Your task to perform on an android device: toggle notification dots Image 0: 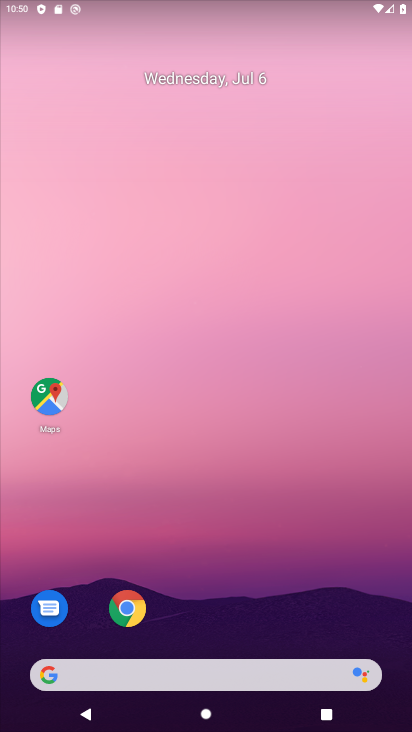
Step 0: drag from (286, 703) to (188, 298)
Your task to perform on an android device: toggle notification dots Image 1: 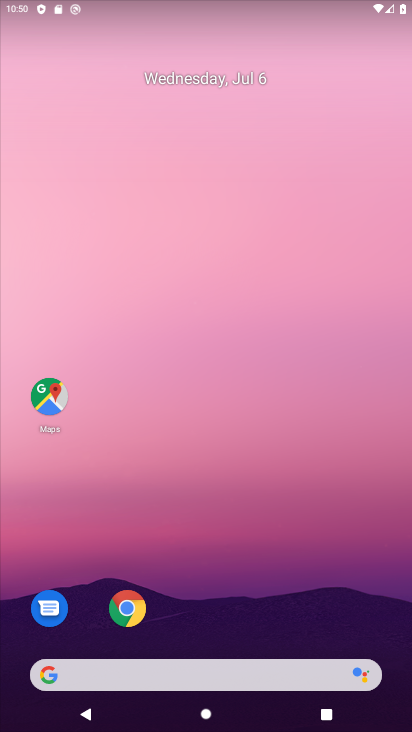
Step 1: drag from (278, 721) to (214, 269)
Your task to perform on an android device: toggle notification dots Image 2: 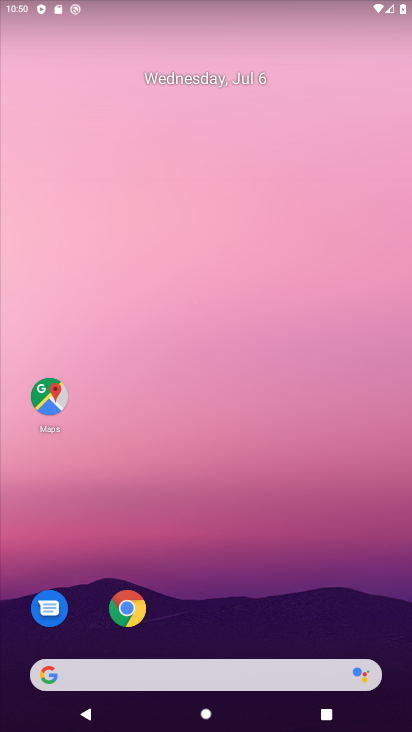
Step 2: drag from (299, 598) to (182, 156)
Your task to perform on an android device: toggle notification dots Image 3: 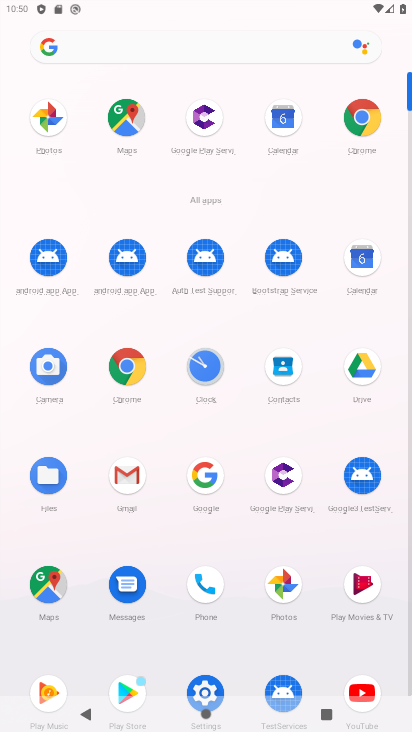
Step 3: click (206, 679)
Your task to perform on an android device: toggle notification dots Image 4: 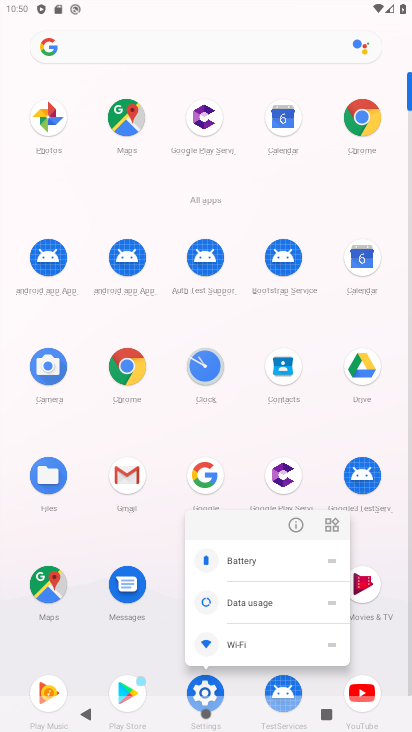
Step 4: click (207, 681)
Your task to perform on an android device: toggle notification dots Image 5: 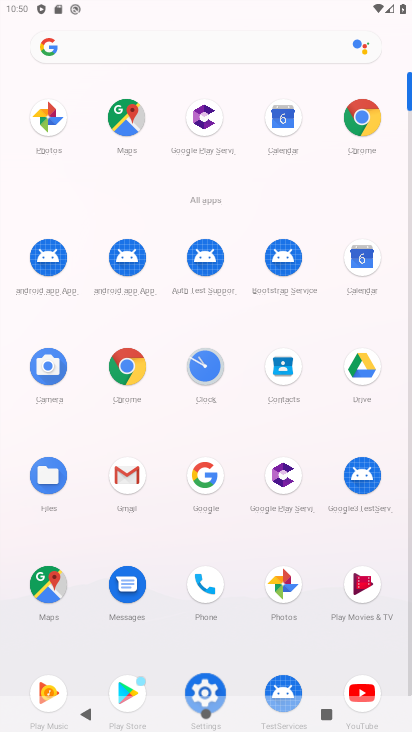
Step 5: click (207, 681)
Your task to perform on an android device: toggle notification dots Image 6: 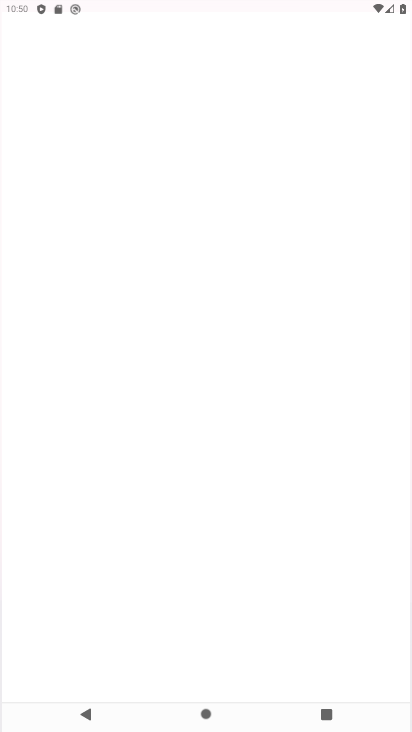
Step 6: click (208, 682)
Your task to perform on an android device: toggle notification dots Image 7: 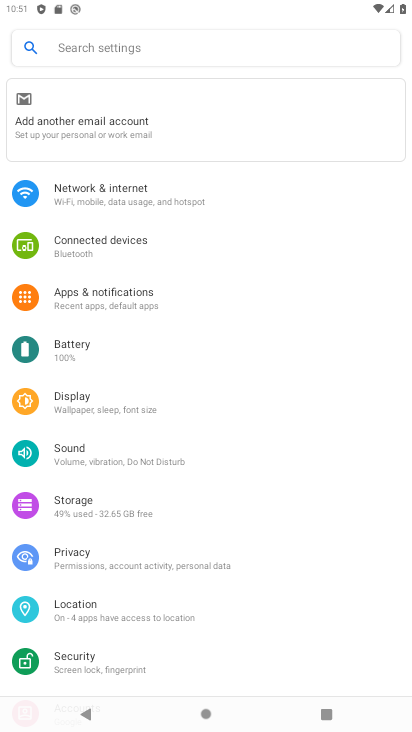
Step 7: click (107, 301)
Your task to perform on an android device: toggle notification dots Image 8: 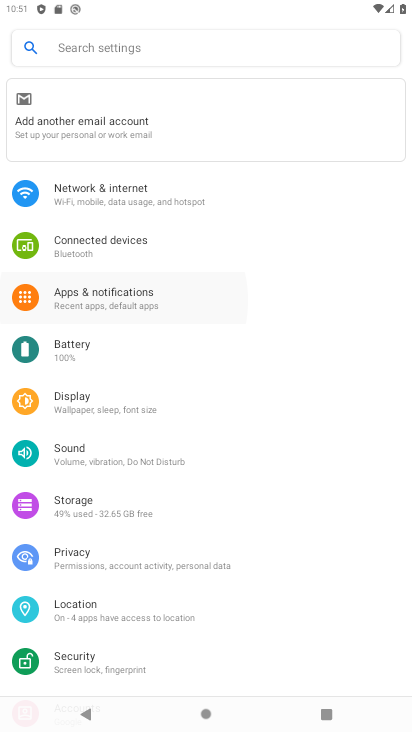
Step 8: click (111, 297)
Your task to perform on an android device: toggle notification dots Image 9: 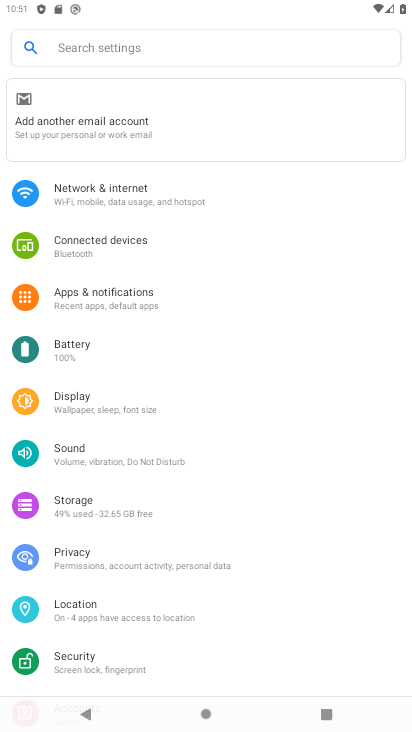
Step 9: click (111, 297)
Your task to perform on an android device: toggle notification dots Image 10: 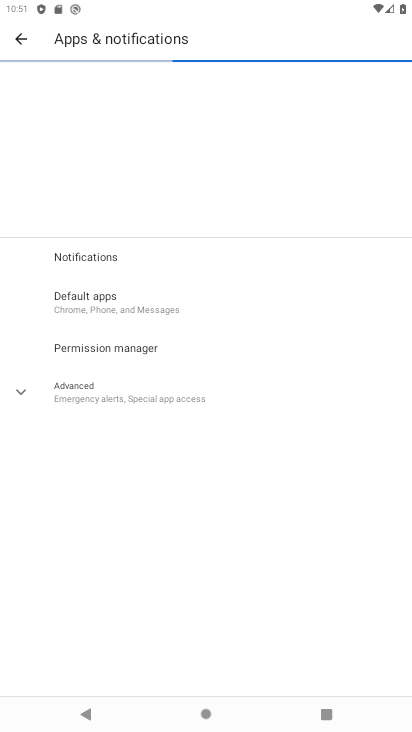
Step 10: click (75, 289)
Your task to perform on an android device: toggle notification dots Image 11: 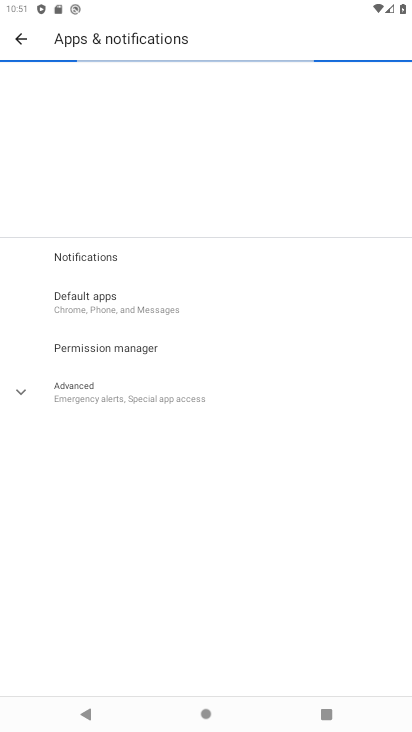
Step 11: click (75, 289)
Your task to perform on an android device: toggle notification dots Image 12: 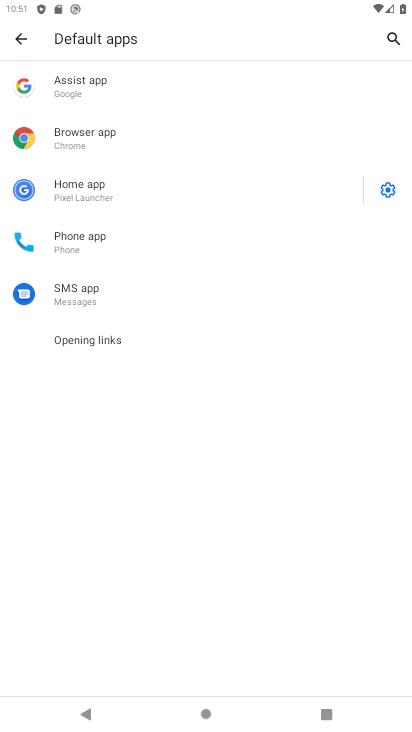
Step 12: click (18, 40)
Your task to perform on an android device: toggle notification dots Image 13: 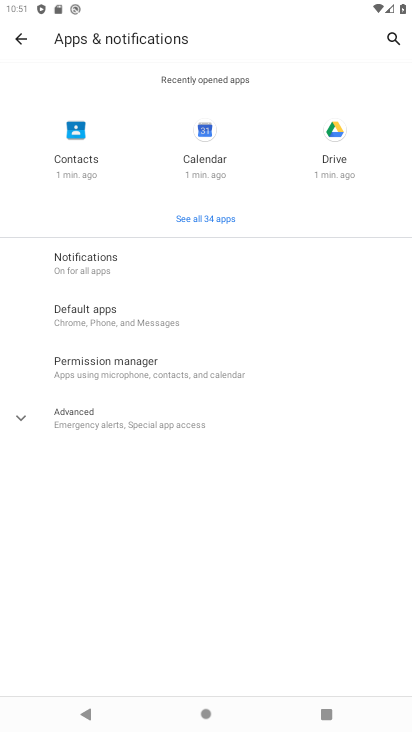
Step 13: click (109, 260)
Your task to perform on an android device: toggle notification dots Image 14: 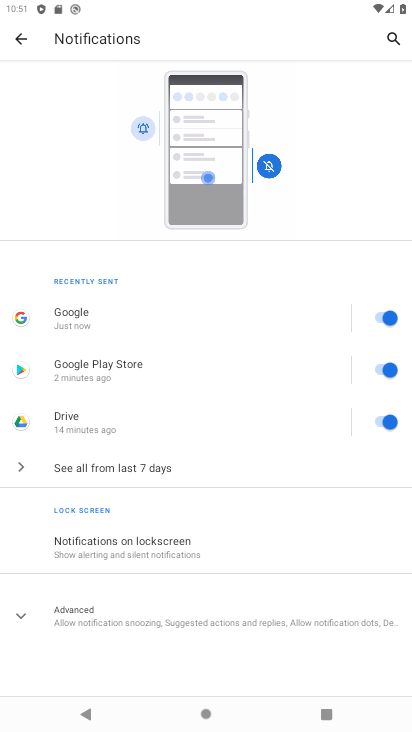
Step 14: click (77, 617)
Your task to perform on an android device: toggle notification dots Image 15: 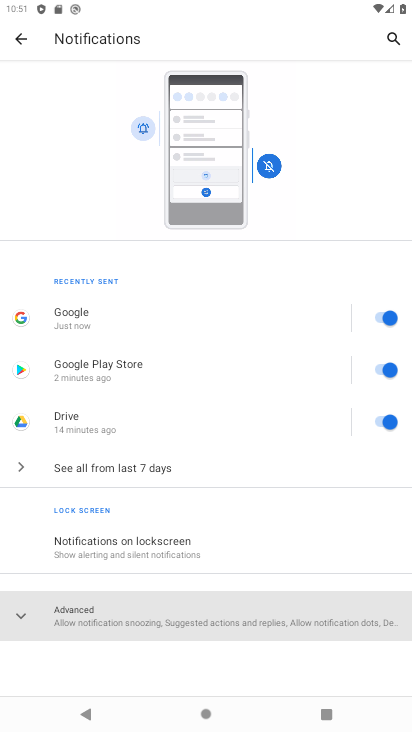
Step 15: click (74, 613)
Your task to perform on an android device: toggle notification dots Image 16: 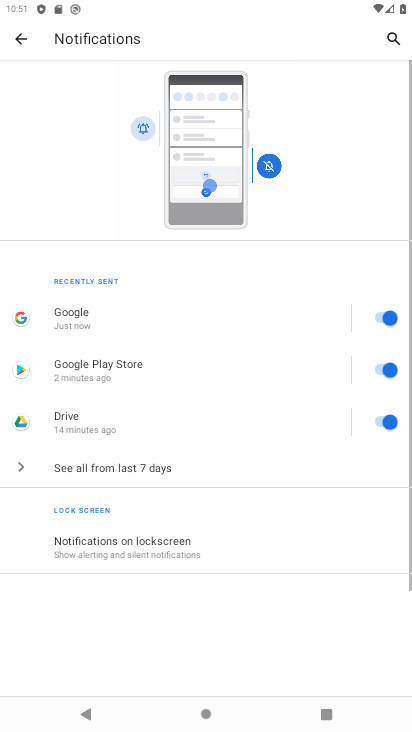
Step 16: click (74, 613)
Your task to perform on an android device: toggle notification dots Image 17: 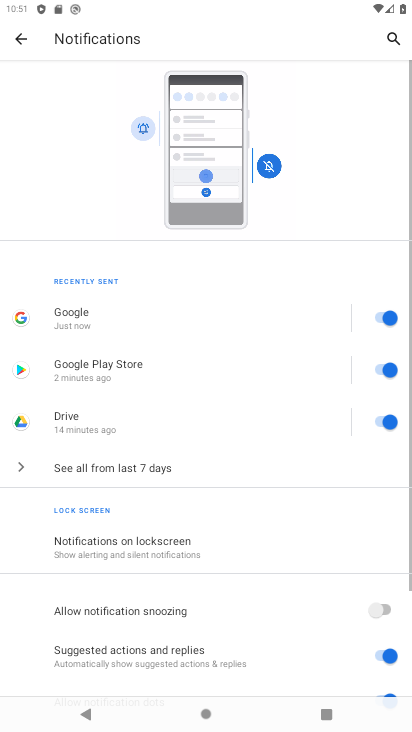
Step 17: click (74, 613)
Your task to perform on an android device: toggle notification dots Image 18: 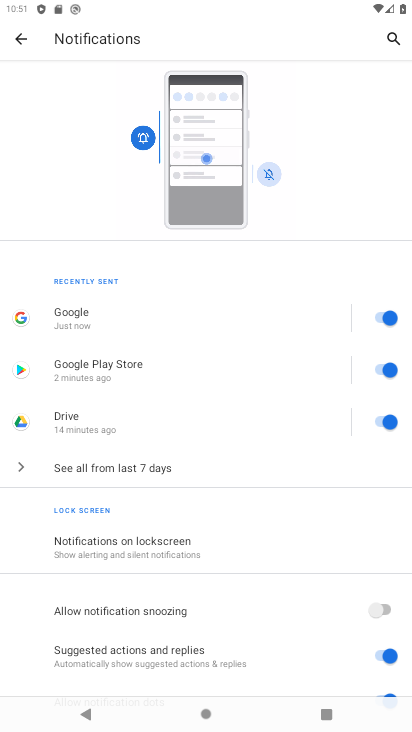
Step 18: drag from (204, 646) to (184, 298)
Your task to perform on an android device: toggle notification dots Image 19: 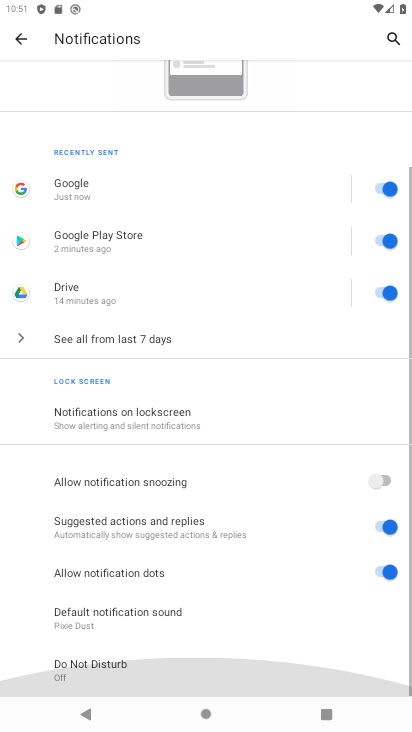
Step 19: drag from (235, 546) to (194, 186)
Your task to perform on an android device: toggle notification dots Image 20: 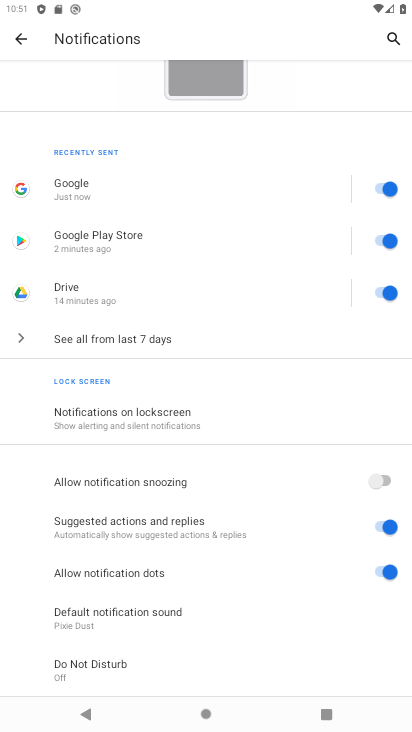
Step 20: click (379, 483)
Your task to perform on an android device: toggle notification dots Image 21: 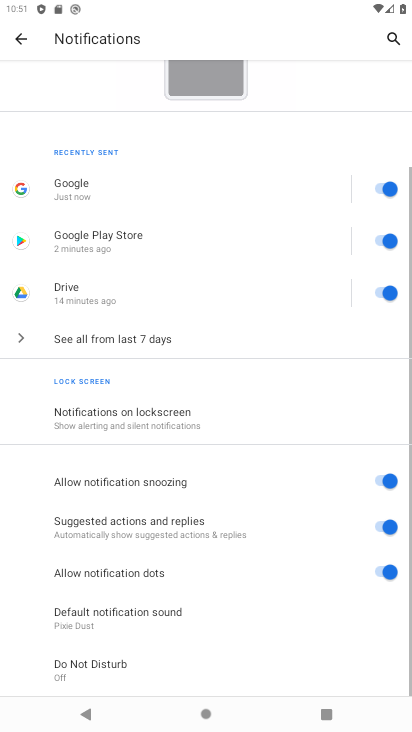
Step 21: click (394, 575)
Your task to perform on an android device: toggle notification dots Image 22: 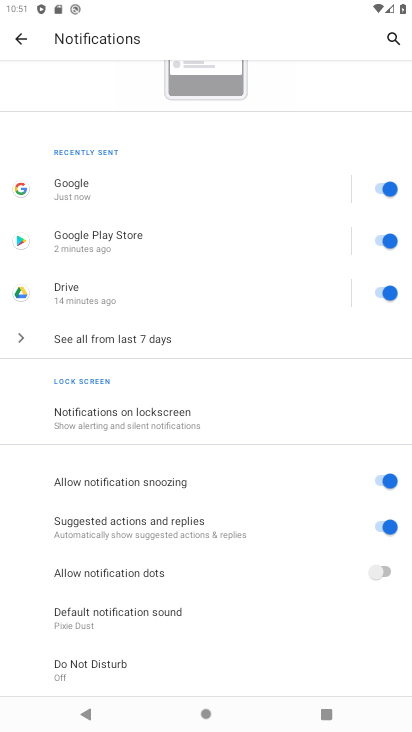
Step 22: press back button
Your task to perform on an android device: toggle notification dots Image 23: 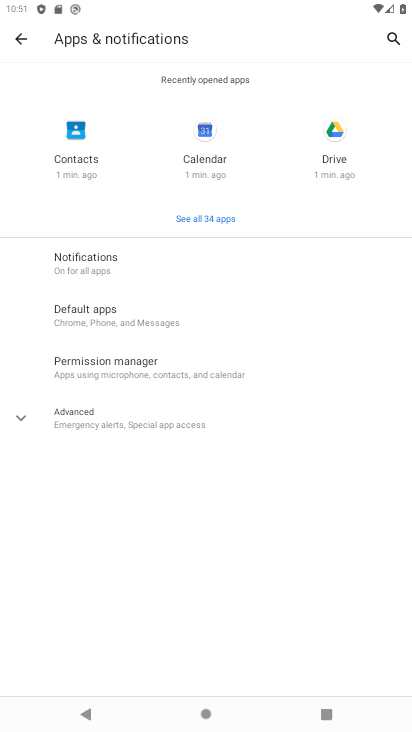
Step 23: click (13, 35)
Your task to perform on an android device: toggle notification dots Image 24: 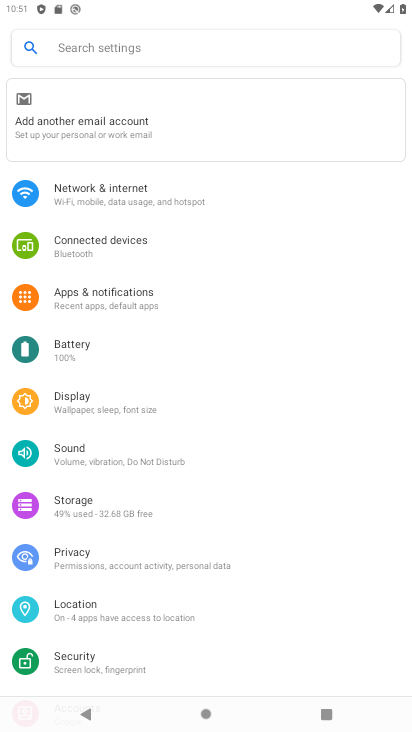
Step 24: click (117, 295)
Your task to perform on an android device: toggle notification dots Image 25: 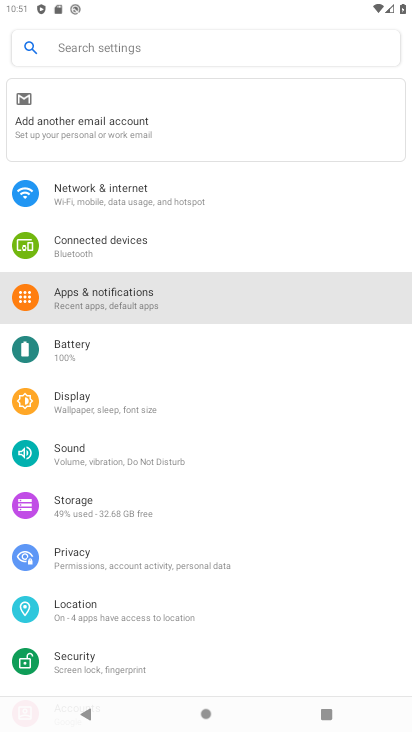
Step 25: click (117, 296)
Your task to perform on an android device: toggle notification dots Image 26: 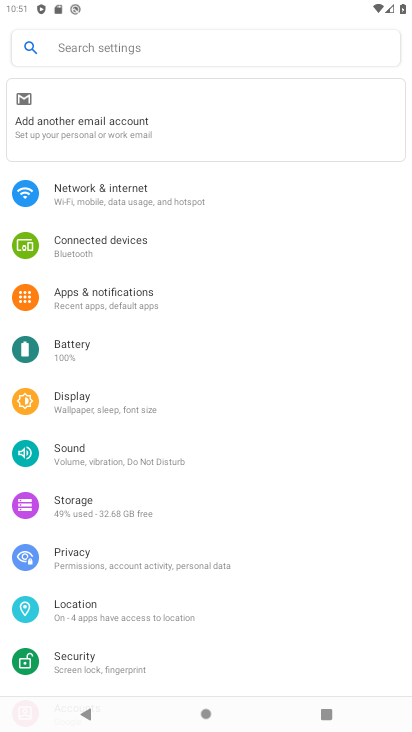
Step 26: click (117, 296)
Your task to perform on an android device: toggle notification dots Image 27: 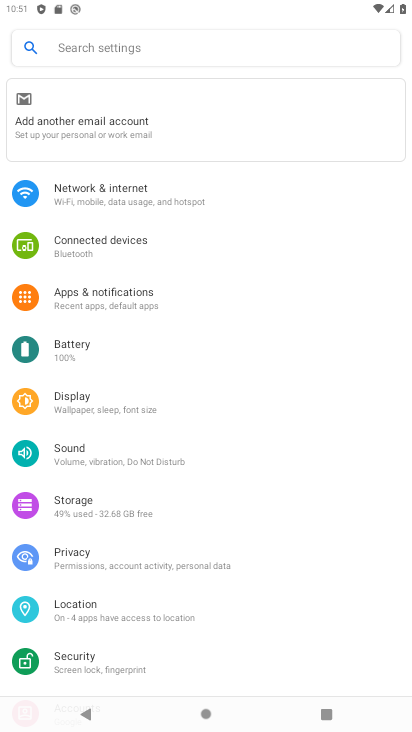
Step 27: click (117, 296)
Your task to perform on an android device: toggle notification dots Image 28: 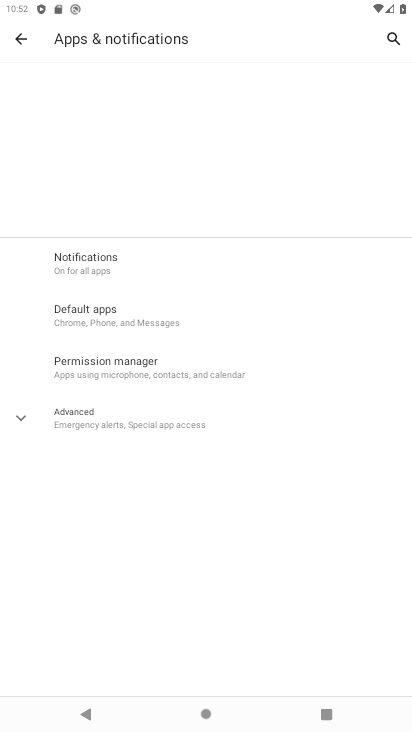
Step 28: click (110, 299)
Your task to perform on an android device: toggle notification dots Image 29: 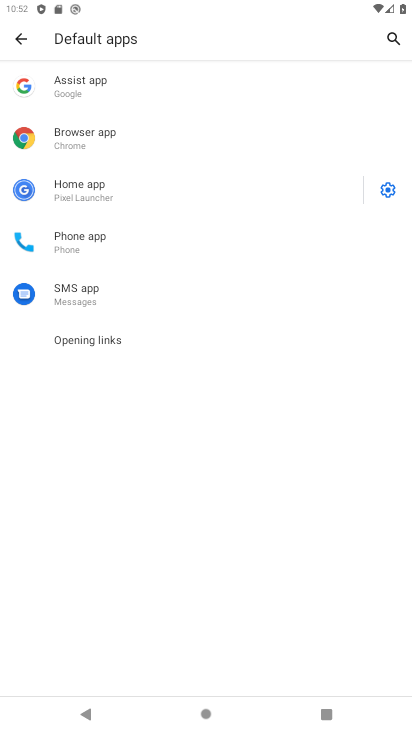
Step 29: click (14, 21)
Your task to perform on an android device: toggle notification dots Image 30: 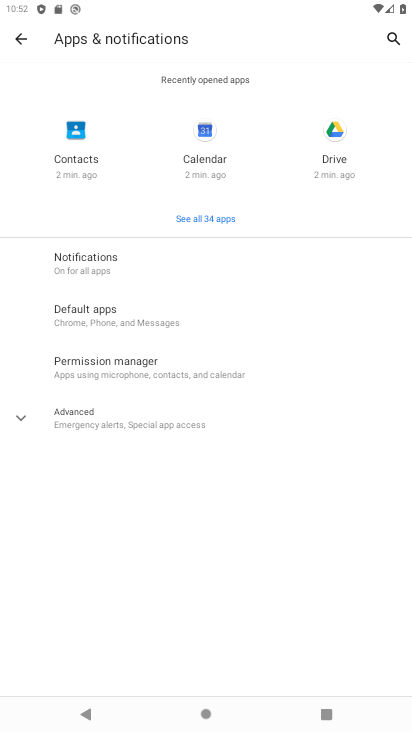
Step 30: click (99, 263)
Your task to perform on an android device: toggle notification dots Image 31: 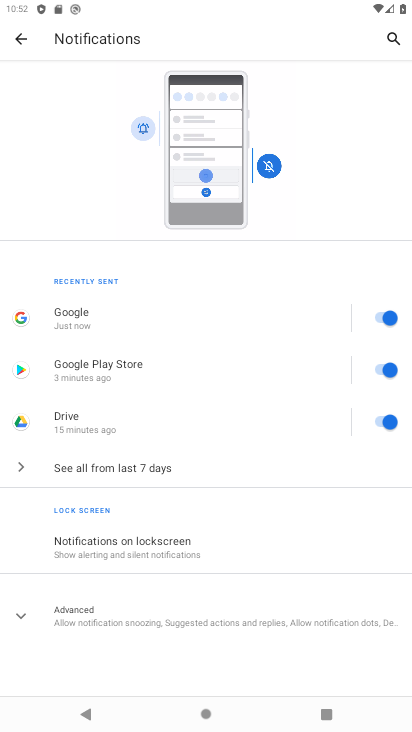
Step 31: click (75, 606)
Your task to perform on an android device: toggle notification dots Image 32: 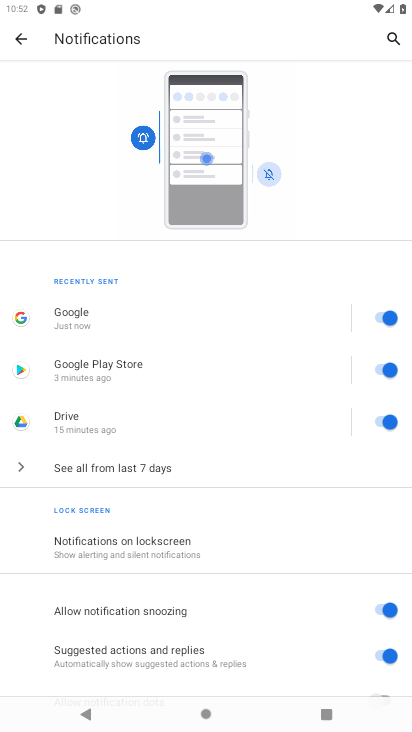
Step 32: drag from (97, 638) to (53, 260)
Your task to perform on an android device: toggle notification dots Image 33: 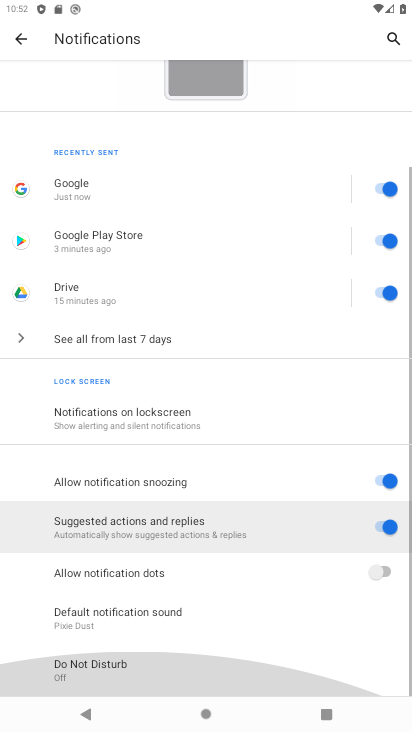
Step 33: drag from (185, 560) to (217, 348)
Your task to perform on an android device: toggle notification dots Image 34: 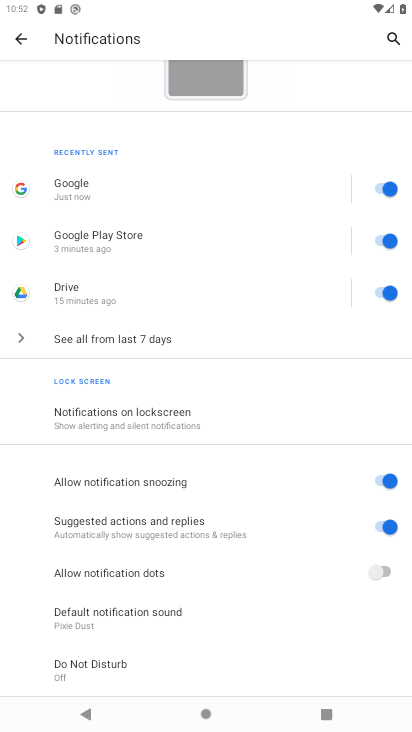
Step 34: click (377, 572)
Your task to perform on an android device: toggle notification dots Image 35: 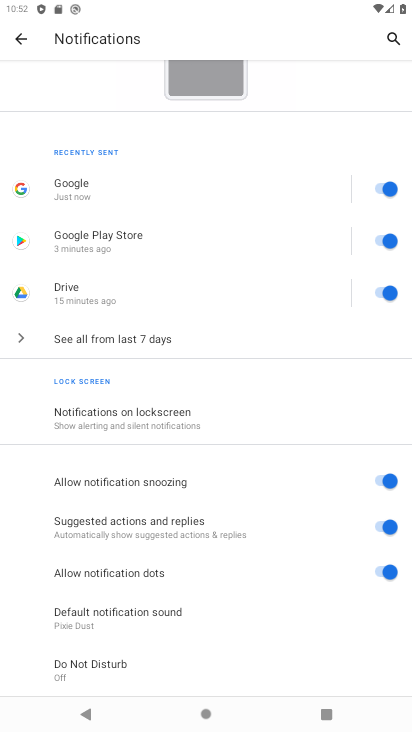
Step 35: task complete